Your task to perform on an android device: turn pop-ups off in chrome Image 0: 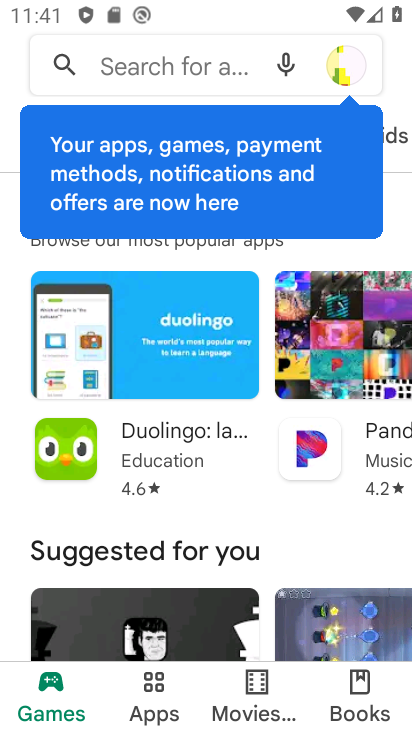
Step 0: press back button
Your task to perform on an android device: turn pop-ups off in chrome Image 1: 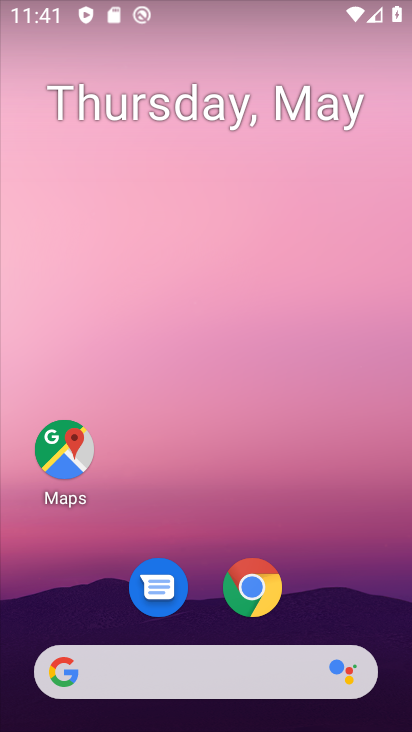
Step 1: click (258, 592)
Your task to perform on an android device: turn pop-ups off in chrome Image 2: 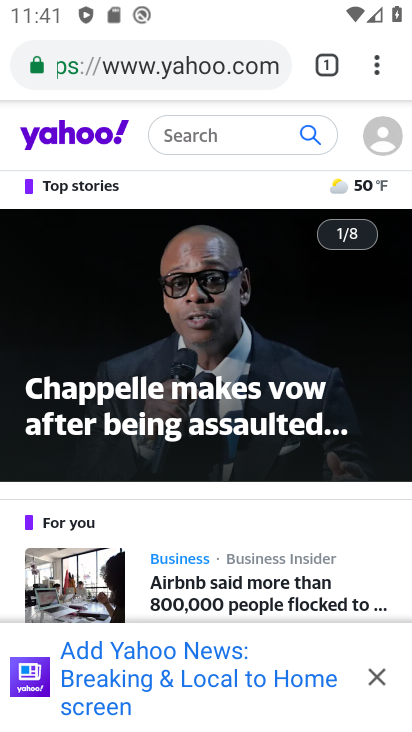
Step 2: drag from (372, 70) to (138, 628)
Your task to perform on an android device: turn pop-ups off in chrome Image 3: 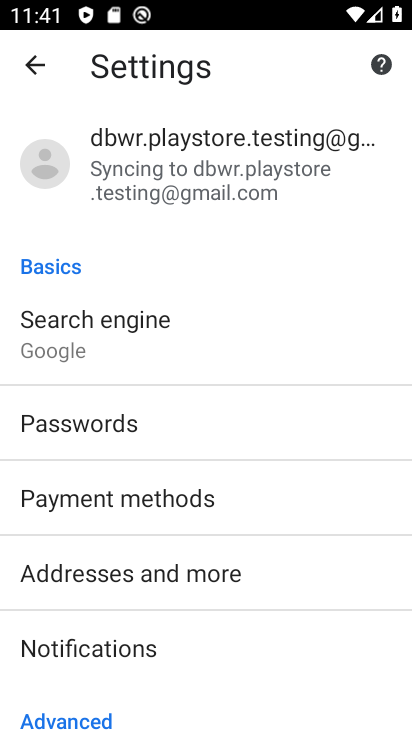
Step 3: drag from (155, 681) to (239, 288)
Your task to perform on an android device: turn pop-ups off in chrome Image 4: 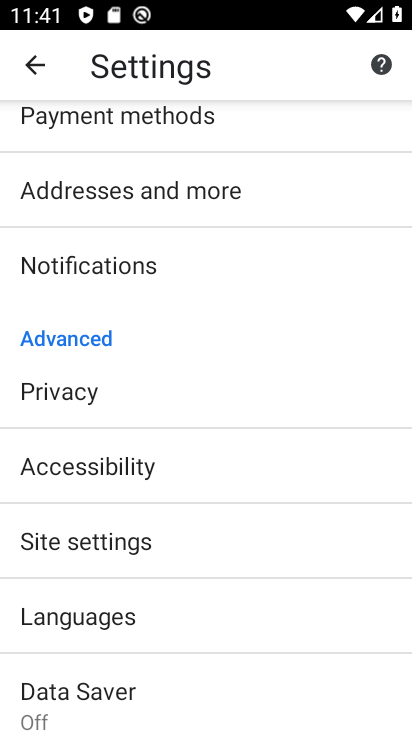
Step 4: click (108, 539)
Your task to perform on an android device: turn pop-ups off in chrome Image 5: 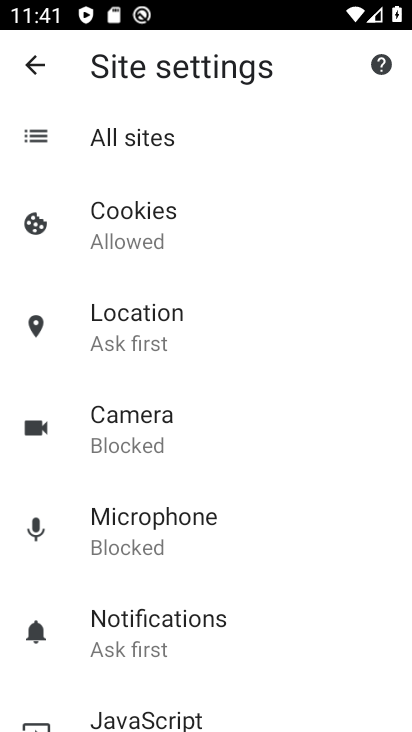
Step 5: drag from (155, 668) to (262, 231)
Your task to perform on an android device: turn pop-ups off in chrome Image 6: 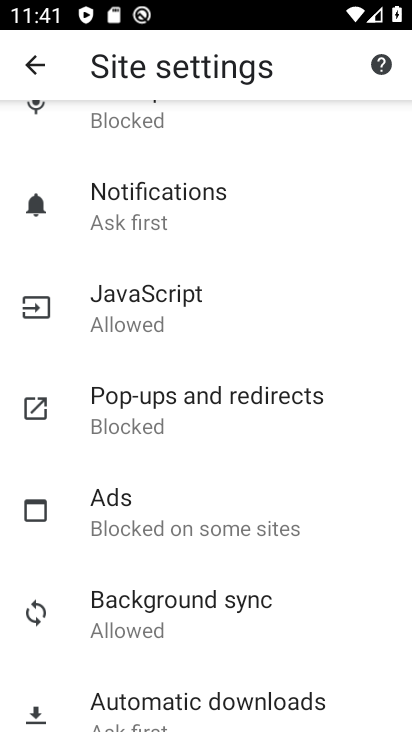
Step 6: click (143, 405)
Your task to perform on an android device: turn pop-ups off in chrome Image 7: 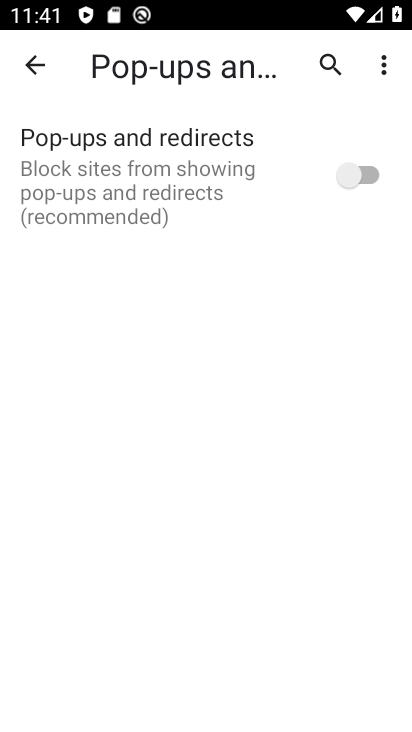
Step 7: task complete